Your task to perform on an android device: Do I have any events tomorrow? Image 0: 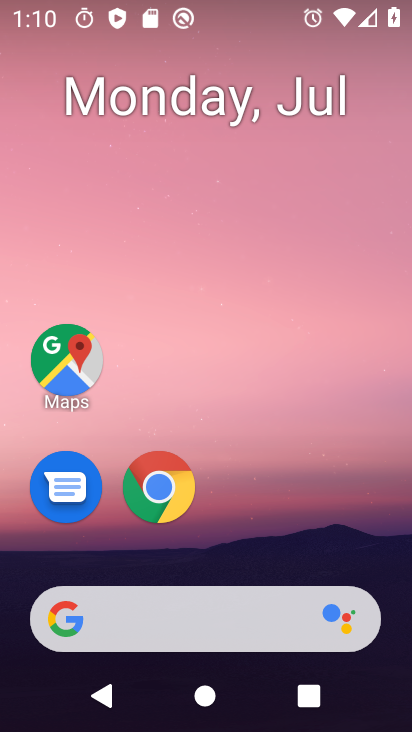
Step 0: press home button
Your task to perform on an android device: Do I have any events tomorrow? Image 1: 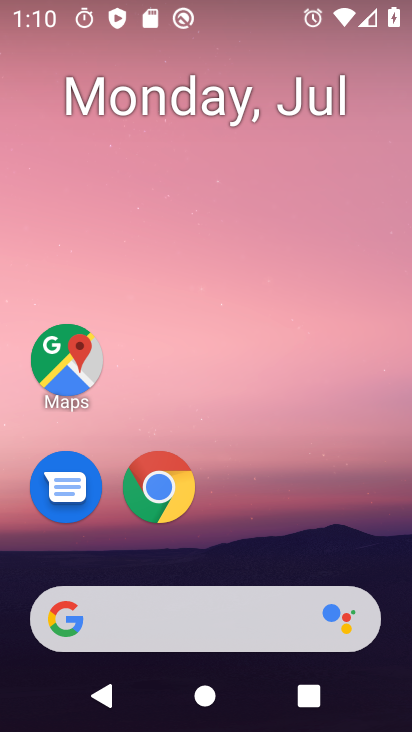
Step 1: drag from (285, 511) to (245, 18)
Your task to perform on an android device: Do I have any events tomorrow? Image 2: 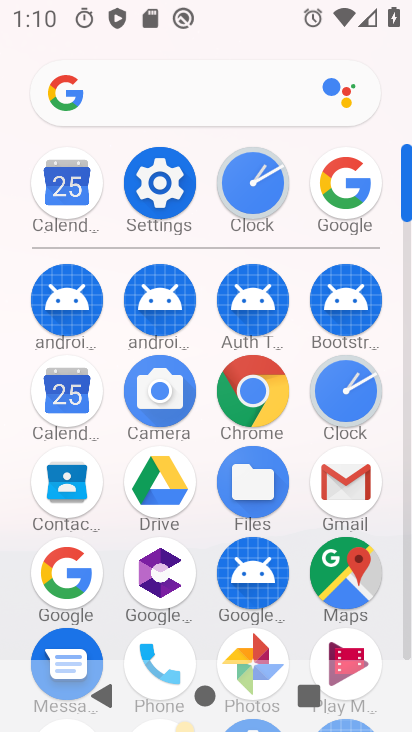
Step 2: click (73, 394)
Your task to perform on an android device: Do I have any events tomorrow? Image 3: 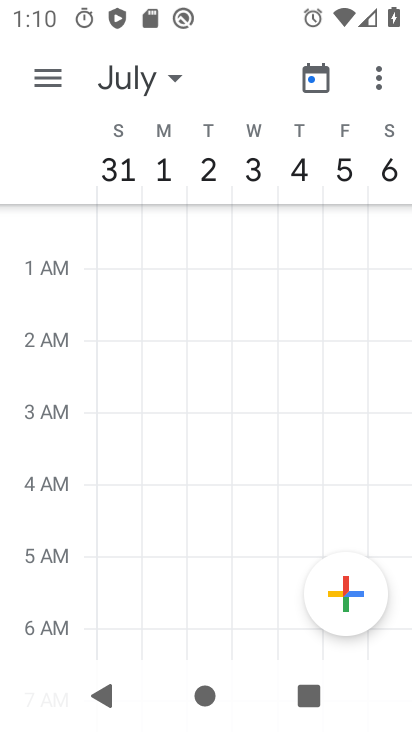
Step 3: drag from (112, 139) to (374, 148)
Your task to perform on an android device: Do I have any events tomorrow? Image 4: 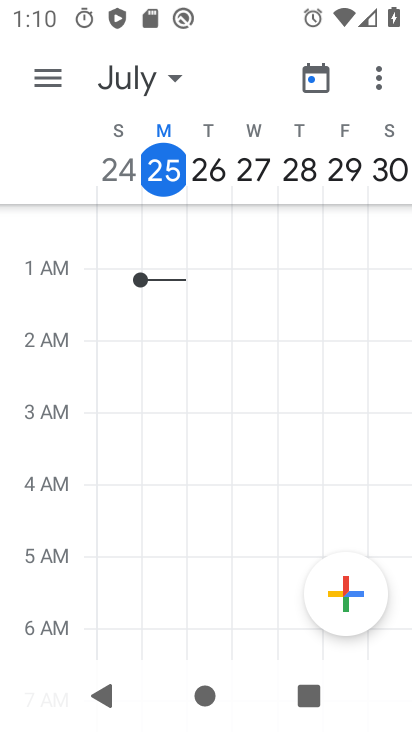
Step 4: click (204, 167)
Your task to perform on an android device: Do I have any events tomorrow? Image 5: 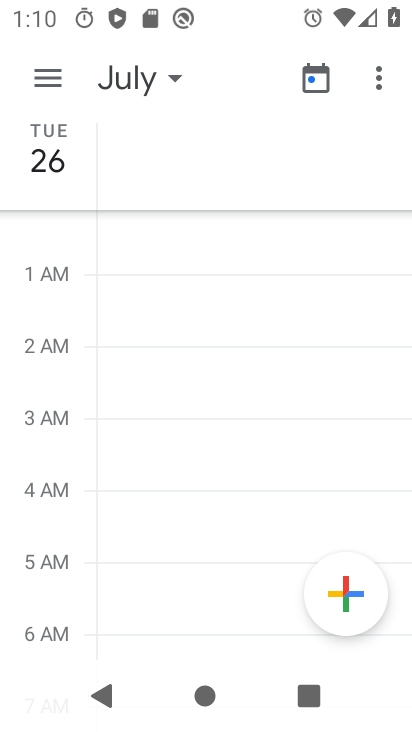
Step 5: task complete